Your task to perform on an android device: empty trash in google photos Image 0: 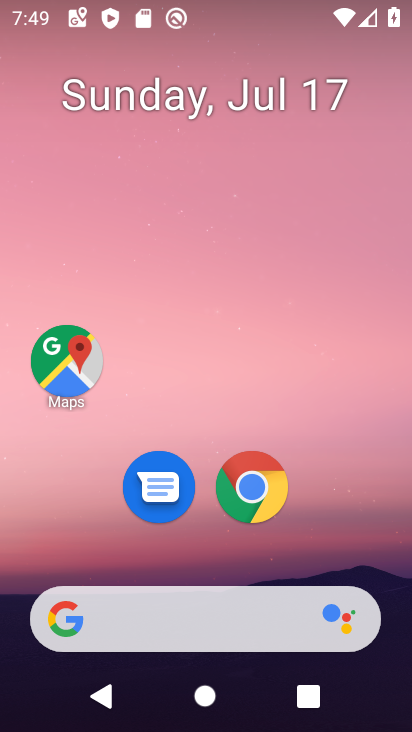
Step 0: drag from (45, 561) to (197, 12)
Your task to perform on an android device: empty trash in google photos Image 1: 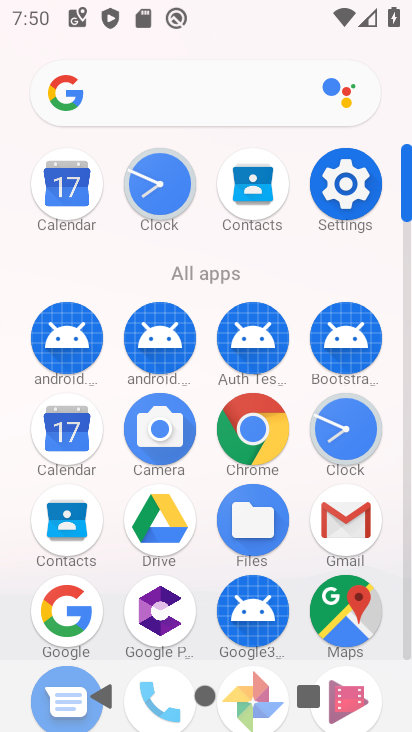
Step 1: drag from (208, 530) to (268, 166)
Your task to perform on an android device: empty trash in google photos Image 2: 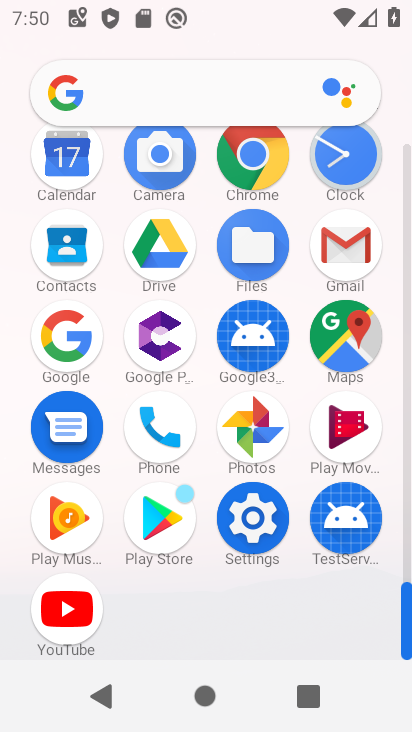
Step 2: click (243, 420)
Your task to perform on an android device: empty trash in google photos Image 3: 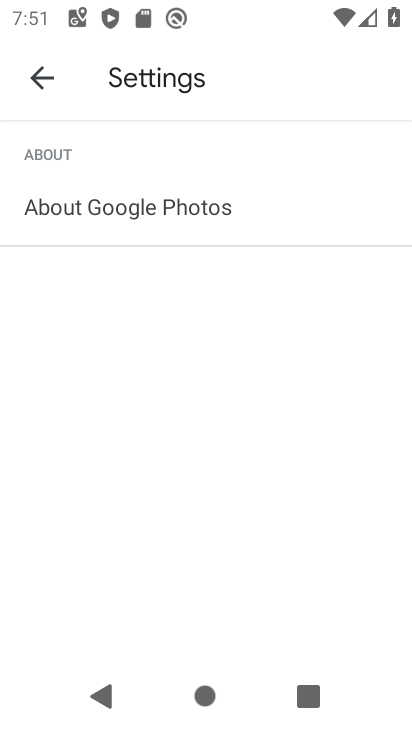
Step 3: click (55, 71)
Your task to perform on an android device: empty trash in google photos Image 4: 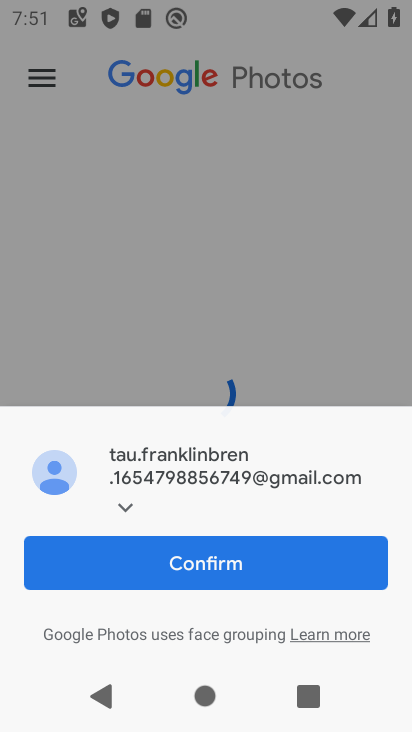
Step 4: click (45, 65)
Your task to perform on an android device: empty trash in google photos Image 5: 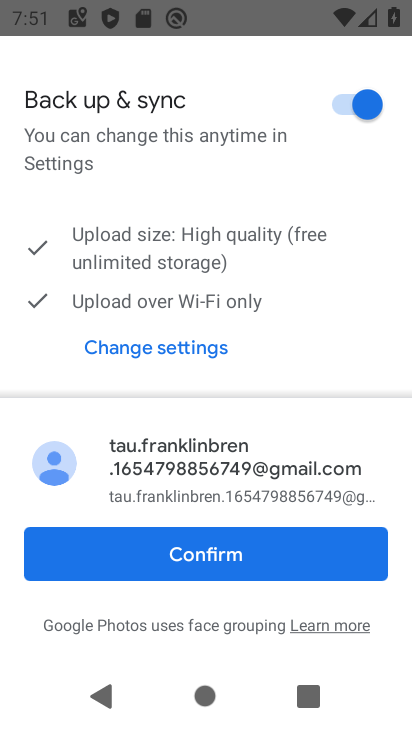
Step 5: click (127, 529)
Your task to perform on an android device: empty trash in google photos Image 6: 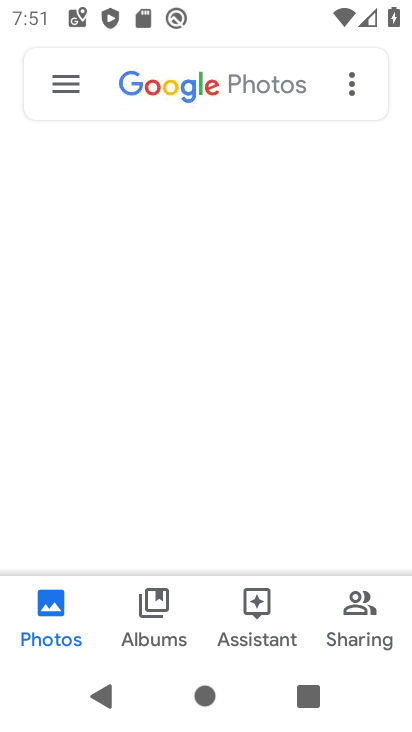
Step 6: click (51, 85)
Your task to perform on an android device: empty trash in google photos Image 7: 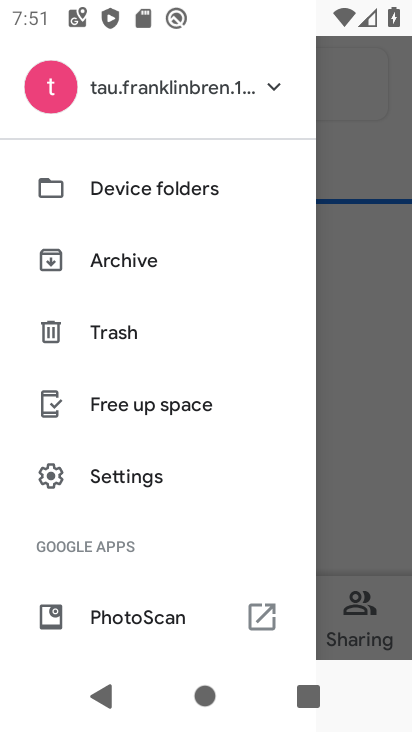
Step 7: click (145, 318)
Your task to perform on an android device: empty trash in google photos Image 8: 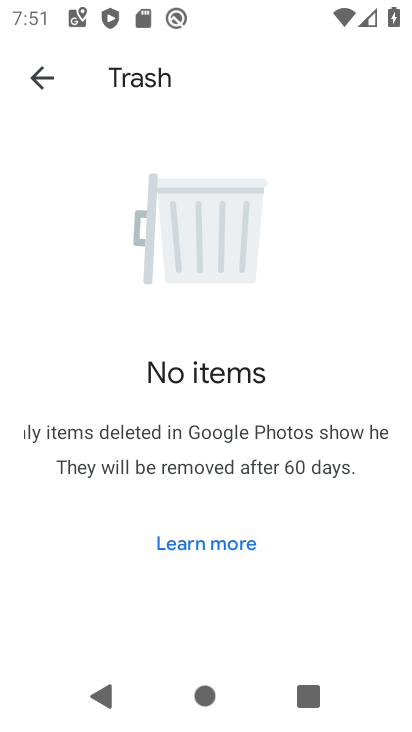
Step 8: task complete